Your task to perform on an android device: open app "Roku - Official Remote Control" Image 0: 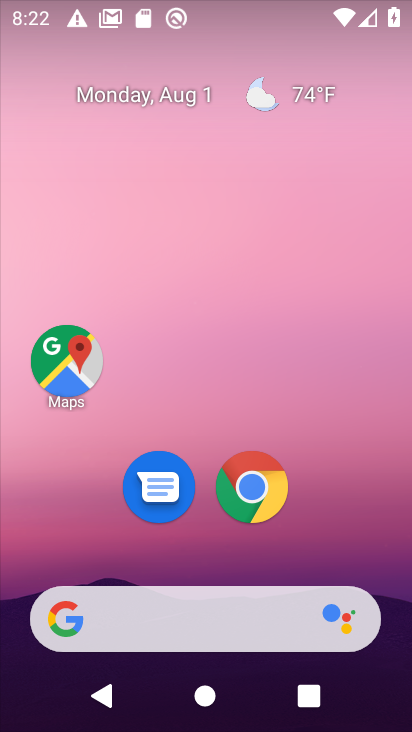
Step 0: drag from (162, 452) to (135, 65)
Your task to perform on an android device: open app "Roku - Official Remote Control" Image 1: 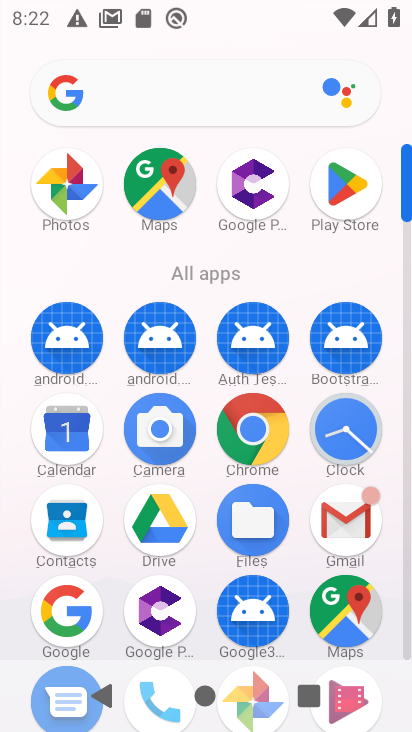
Step 1: click (348, 201)
Your task to perform on an android device: open app "Roku - Official Remote Control" Image 2: 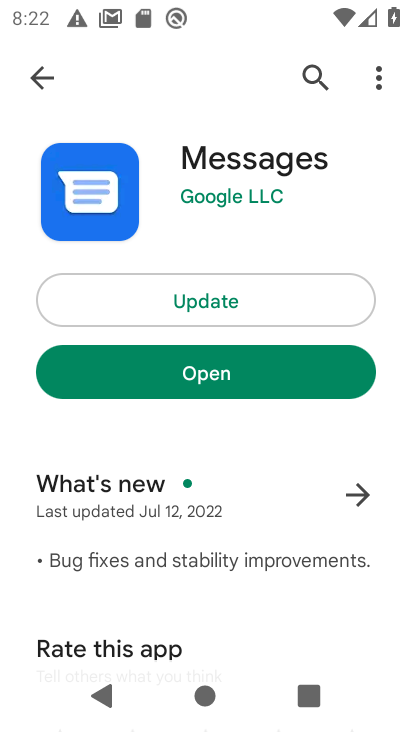
Step 2: click (34, 75)
Your task to perform on an android device: open app "Roku - Official Remote Control" Image 3: 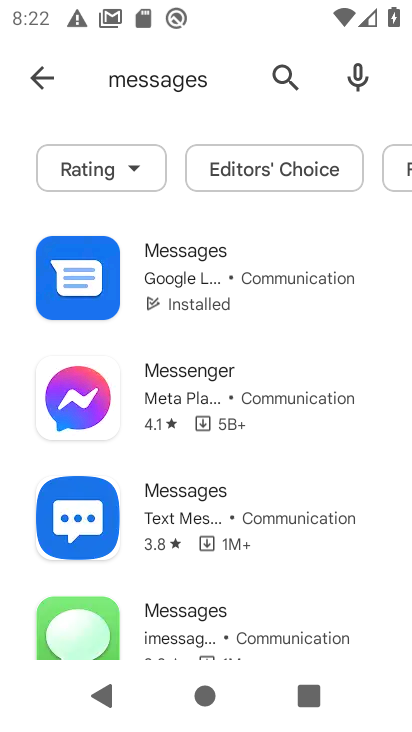
Step 3: click (42, 81)
Your task to perform on an android device: open app "Roku - Official Remote Control" Image 4: 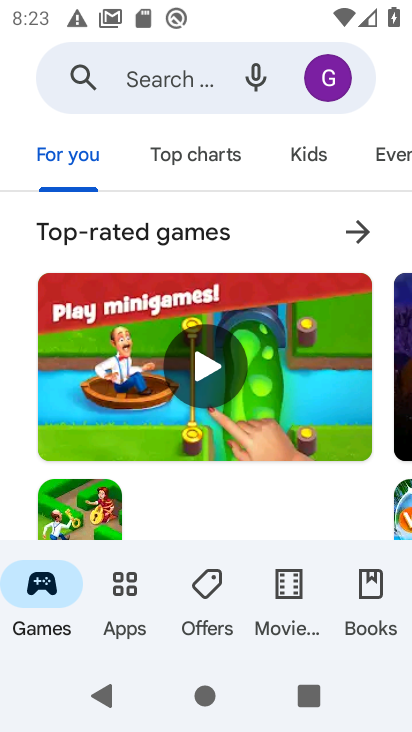
Step 4: click (96, 81)
Your task to perform on an android device: open app "Roku - Official Remote Control" Image 5: 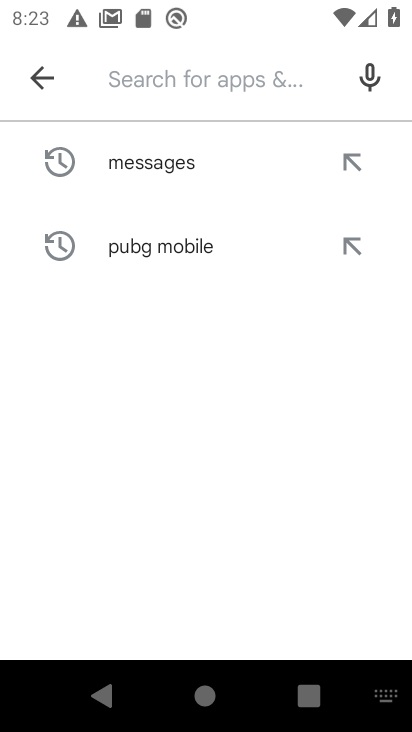
Step 5: type "Roku"
Your task to perform on an android device: open app "Roku - Official Remote Control" Image 6: 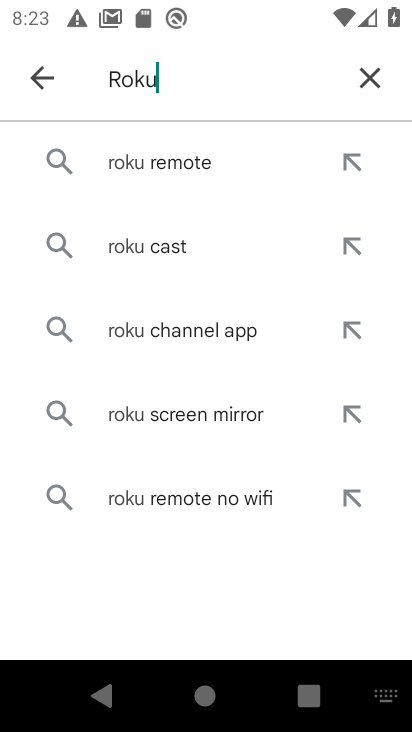
Step 6: click (368, 69)
Your task to perform on an android device: open app "Roku - Official Remote Control" Image 7: 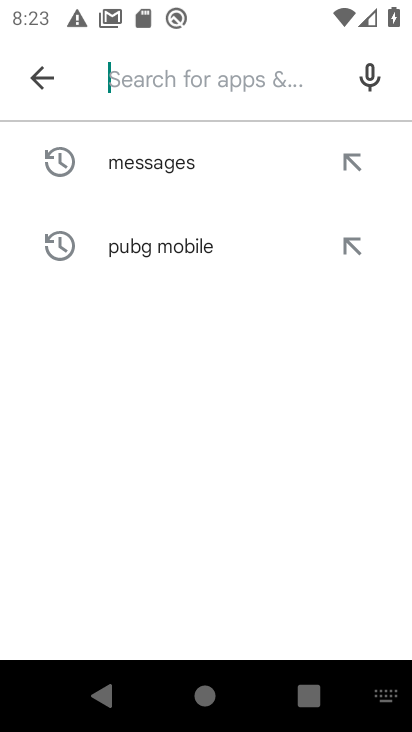
Step 7: click (185, 74)
Your task to perform on an android device: open app "Roku - Official Remote Control" Image 8: 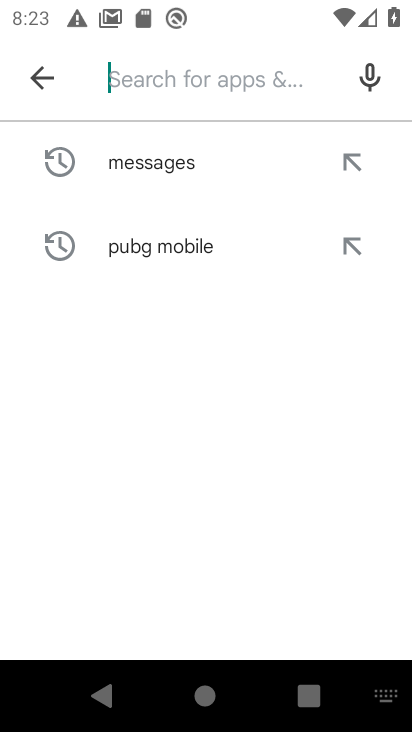
Step 8: type "Roku - Official Remote Control"
Your task to perform on an android device: open app "Roku - Official Remote Control" Image 9: 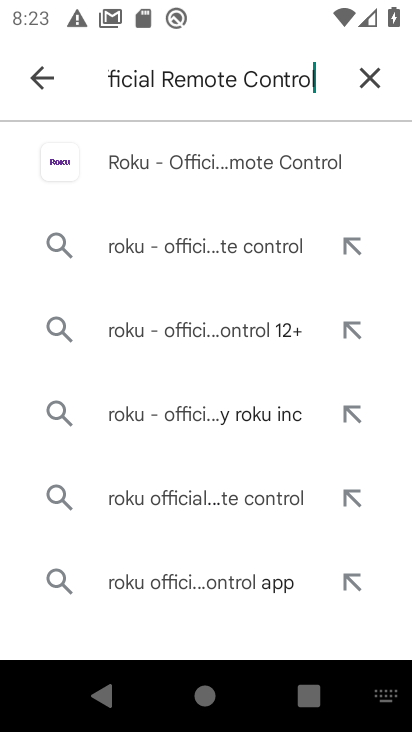
Step 9: click (251, 166)
Your task to perform on an android device: open app "Roku - Official Remote Control" Image 10: 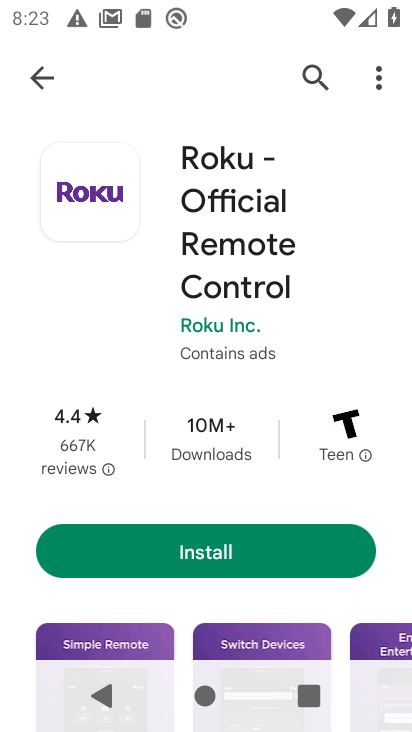
Step 10: click (190, 537)
Your task to perform on an android device: open app "Roku - Official Remote Control" Image 11: 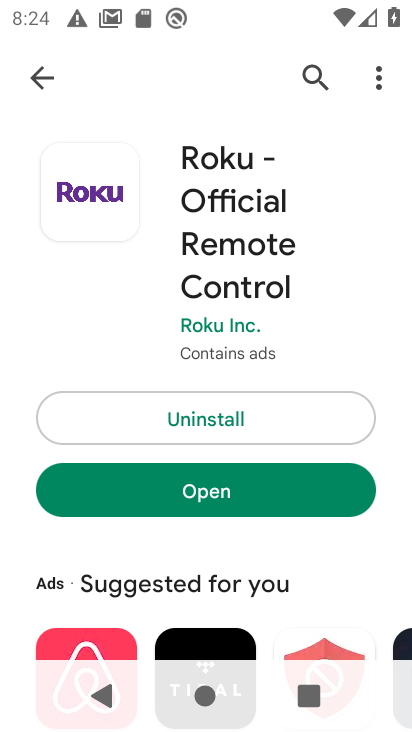
Step 11: click (204, 488)
Your task to perform on an android device: open app "Roku - Official Remote Control" Image 12: 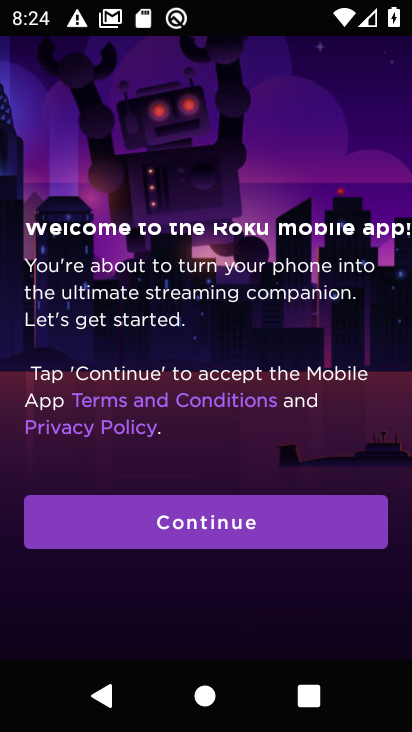
Step 12: task complete